Your task to perform on an android device: turn on javascript in the chrome app Image 0: 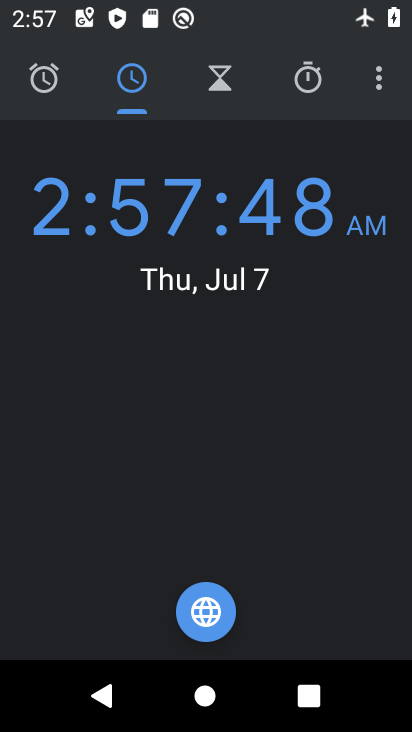
Step 0: press home button
Your task to perform on an android device: turn on javascript in the chrome app Image 1: 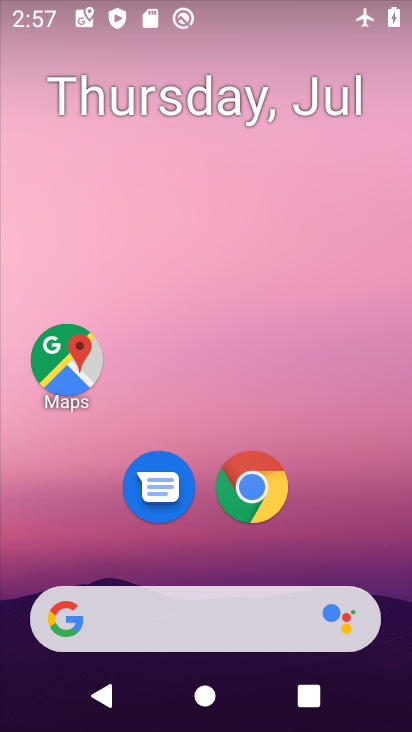
Step 1: drag from (335, 537) to (348, 194)
Your task to perform on an android device: turn on javascript in the chrome app Image 2: 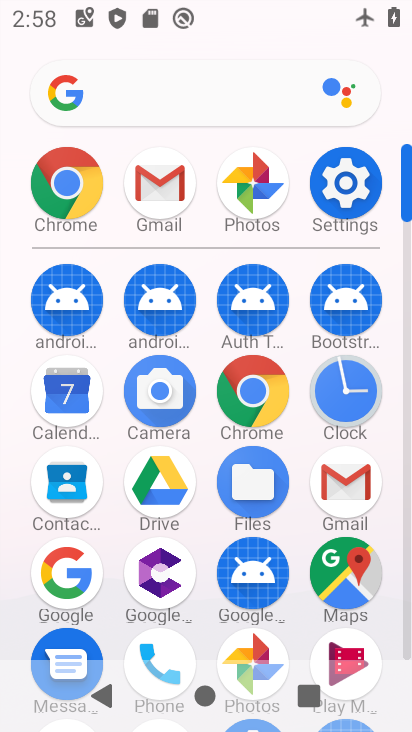
Step 2: click (276, 397)
Your task to perform on an android device: turn on javascript in the chrome app Image 3: 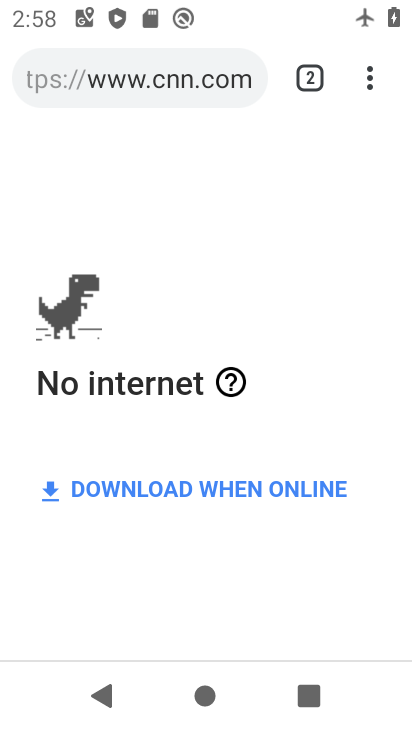
Step 3: click (368, 86)
Your task to perform on an android device: turn on javascript in the chrome app Image 4: 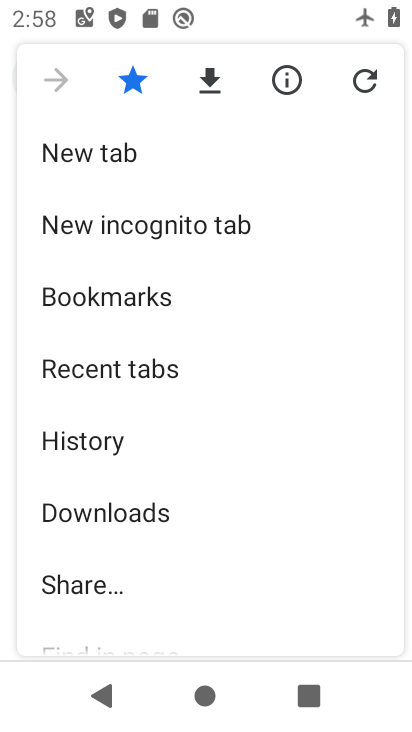
Step 4: drag from (321, 341) to (327, 272)
Your task to perform on an android device: turn on javascript in the chrome app Image 5: 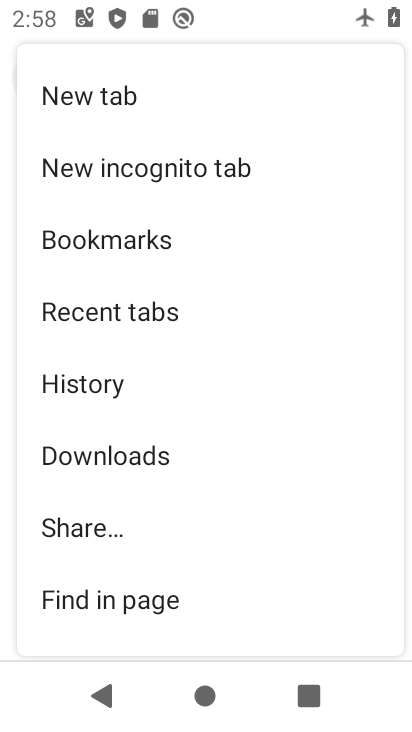
Step 5: drag from (321, 370) to (320, 278)
Your task to perform on an android device: turn on javascript in the chrome app Image 6: 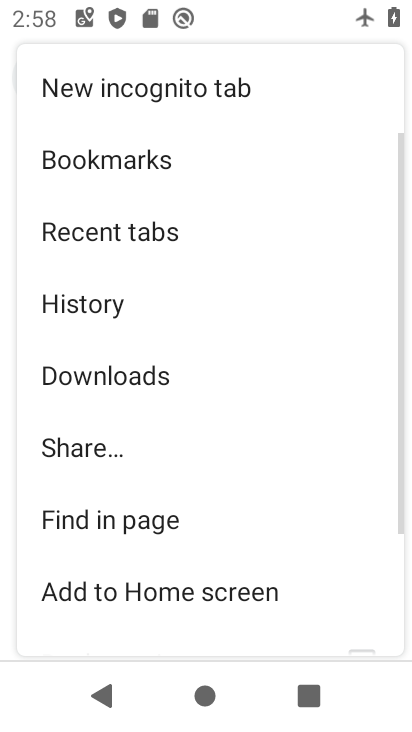
Step 6: drag from (316, 363) to (314, 285)
Your task to perform on an android device: turn on javascript in the chrome app Image 7: 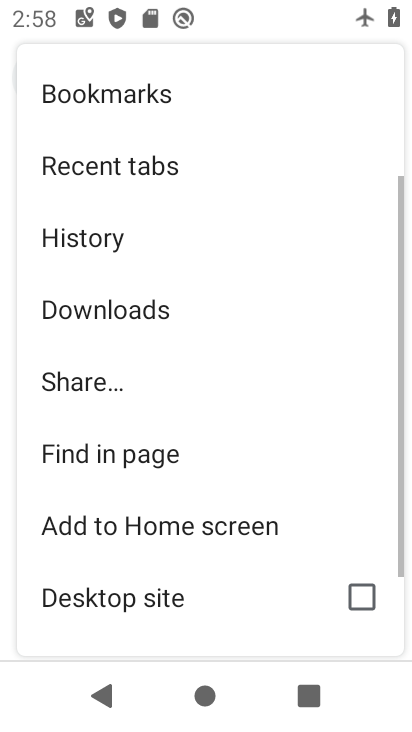
Step 7: drag from (314, 369) to (314, 306)
Your task to perform on an android device: turn on javascript in the chrome app Image 8: 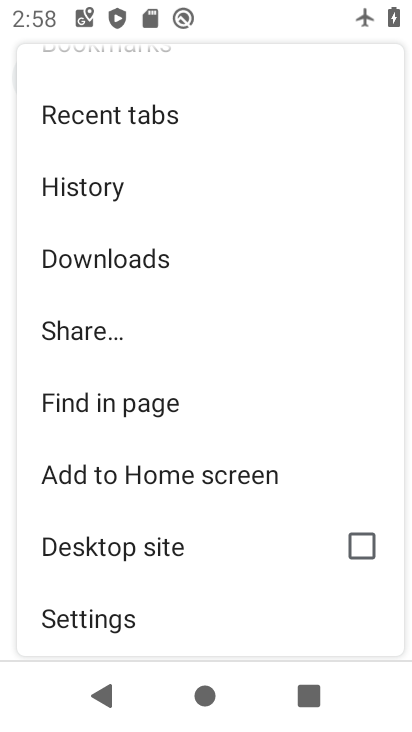
Step 8: drag from (287, 401) to (292, 307)
Your task to perform on an android device: turn on javascript in the chrome app Image 9: 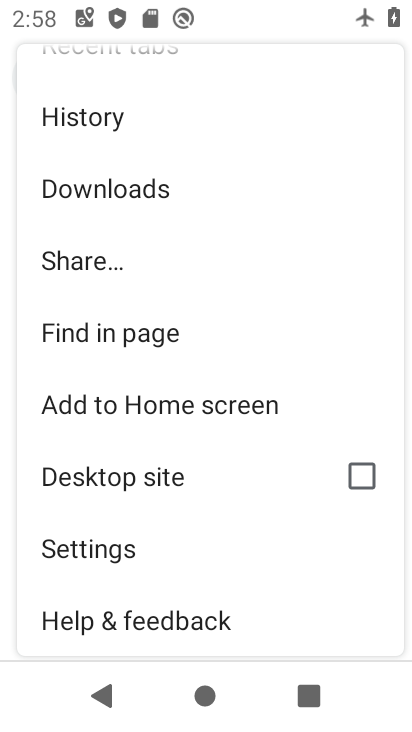
Step 9: drag from (299, 473) to (300, 372)
Your task to perform on an android device: turn on javascript in the chrome app Image 10: 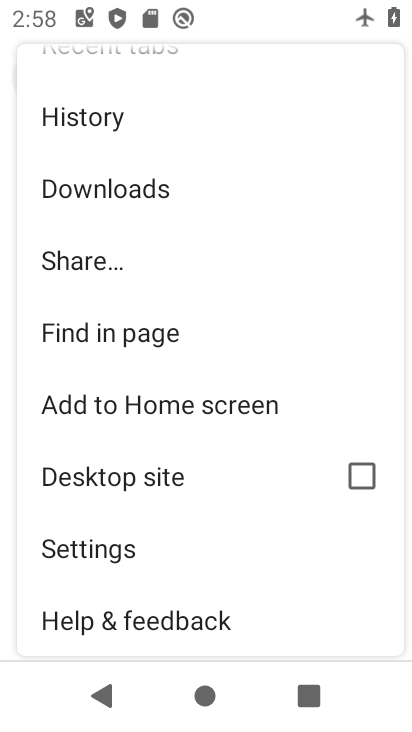
Step 10: click (208, 560)
Your task to perform on an android device: turn on javascript in the chrome app Image 11: 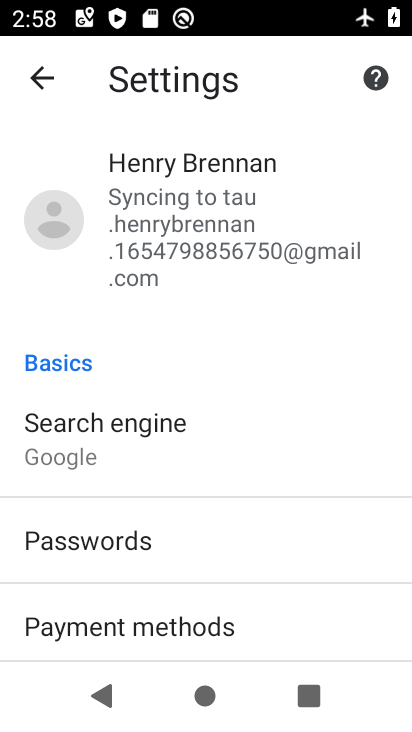
Step 11: drag from (330, 505) to (332, 432)
Your task to perform on an android device: turn on javascript in the chrome app Image 12: 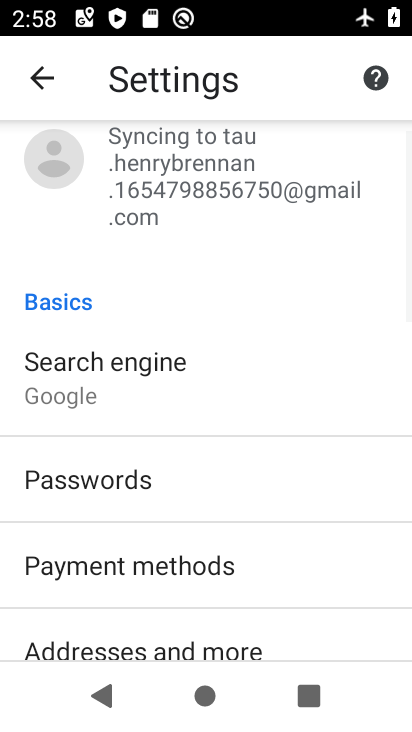
Step 12: drag from (322, 500) to (327, 428)
Your task to perform on an android device: turn on javascript in the chrome app Image 13: 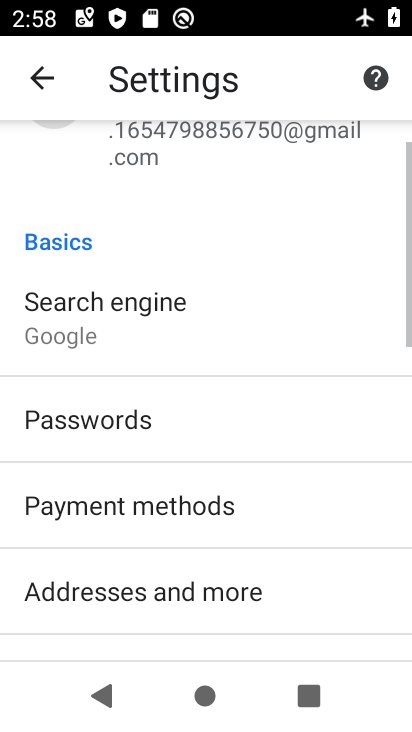
Step 13: drag from (323, 505) to (322, 419)
Your task to perform on an android device: turn on javascript in the chrome app Image 14: 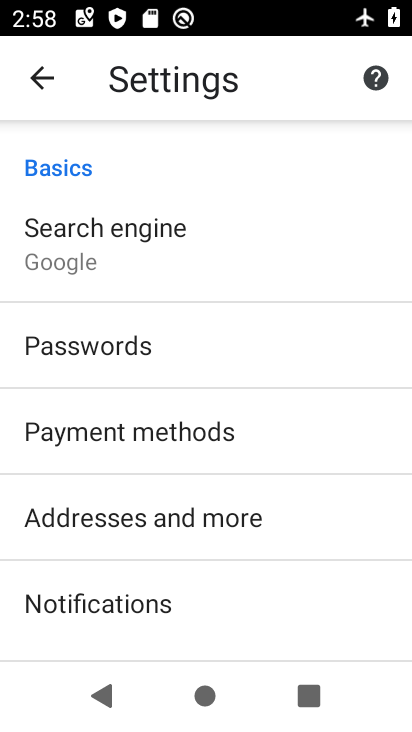
Step 14: drag from (323, 515) to (328, 419)
Your task to perform on an android device: turn on javascript in the chrome app Image 15: 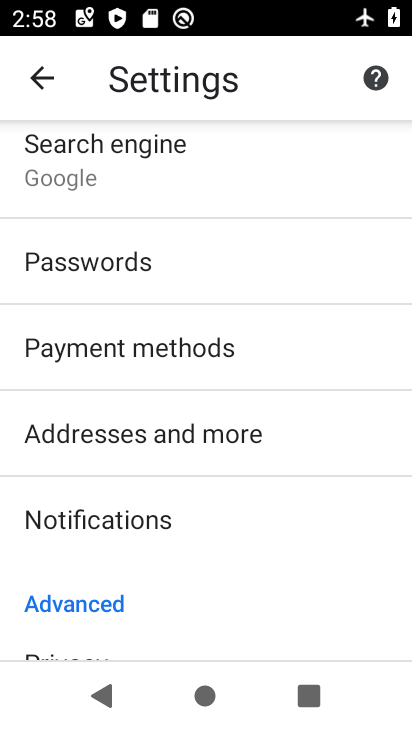
Step 15: drag from (321, 549) to (320, 438)
Your task to perform on an android device: turn on javascript in the chrome app Image 16: 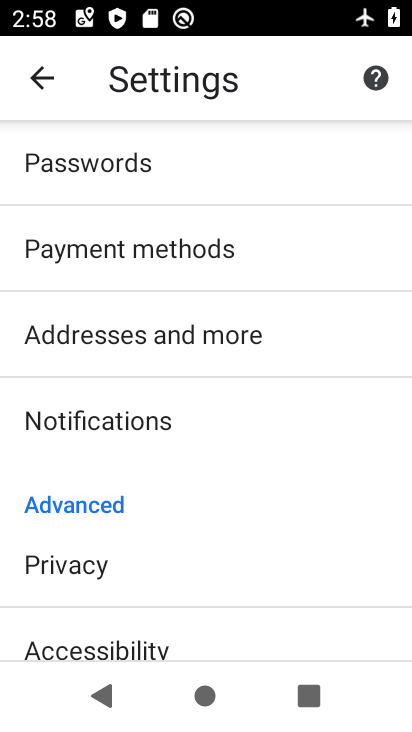
Step 16: drag from (331, 511) to (339, 394)
Your task to perform on an android device: turn on javascript in the chrome app Image 17: 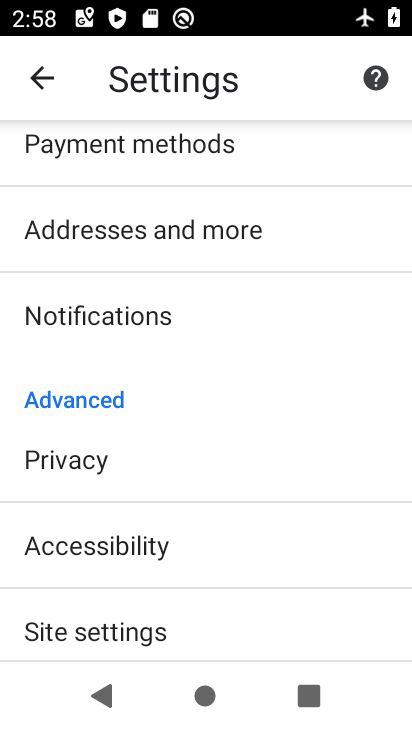
Step 17: drag from (306, 497) to (308, 394)
Your task to perform on an android device: turn on javascript in the chrome app Image 18: 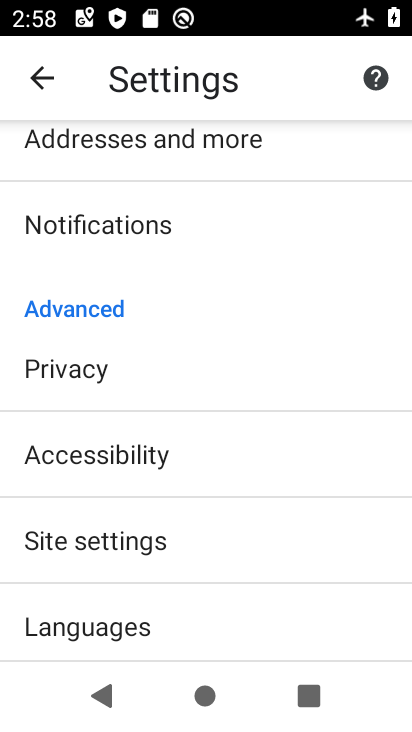
Step 18: drag from (286, 539) to (288, 428)
Your task to perform on an android device: turn on javascript in the chrome app Image 19: 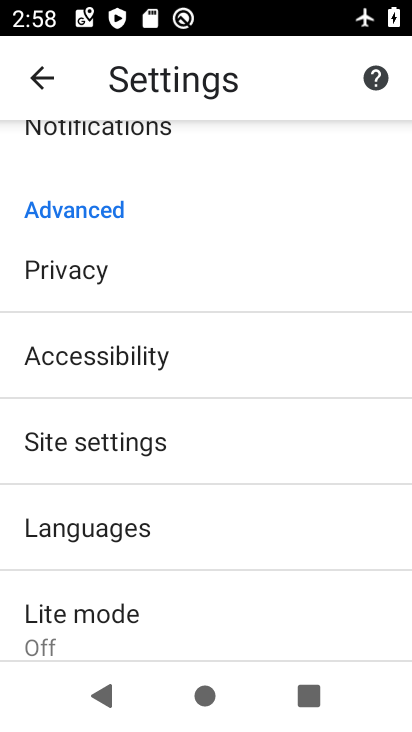
Step 19: drag from (284, 550) to (298, 434)
Your task to perform on an android device: turn on javascript in the chrome app Image 20: 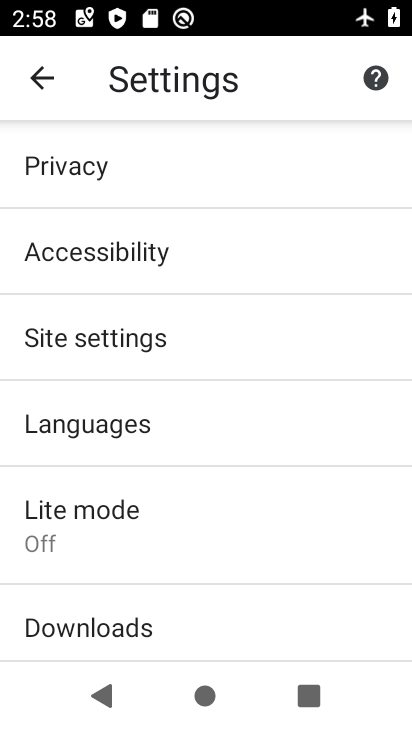
Step 20: click (258, 352)
Your task to perform on an android device: turn on javascript in the chrome app Image 21: 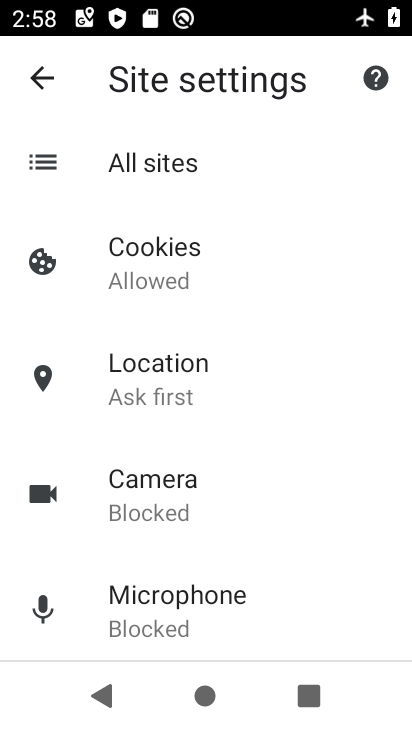
Step 21: drag from (327, 439) to (330, 336)
Your task to perform on an android device: turn on javascript in the chrome app Image 22: 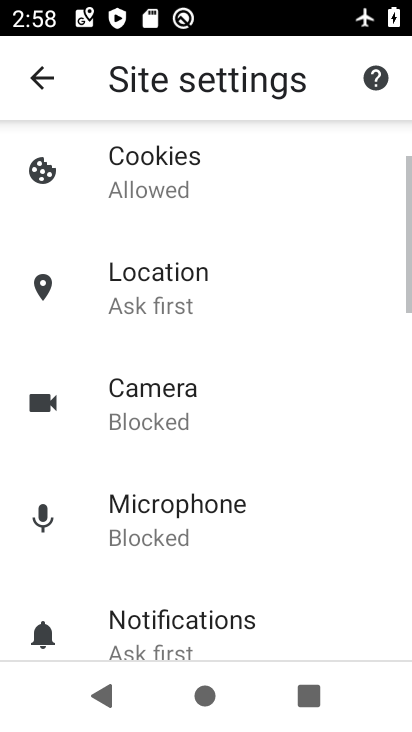
Step 22: drag from (323, 468) to (315, 376)
Your task to perform on an android device: turn on javascript in the chrome app Image 23: 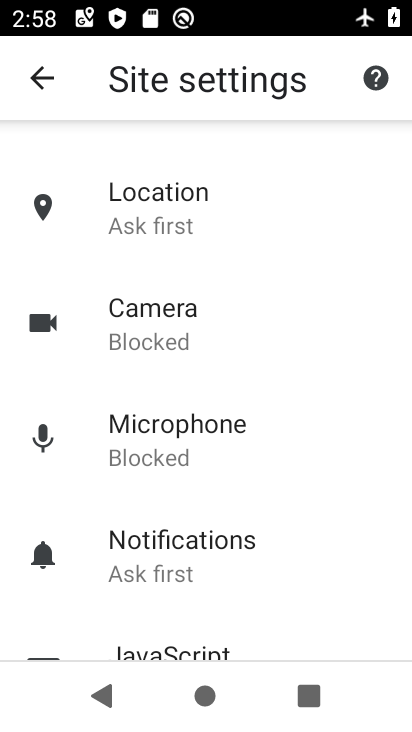
Step 23: drag from (318, 475) to (318, 340)
Your task to perform on an android device: turn on javascript in the chrome app Image 24: 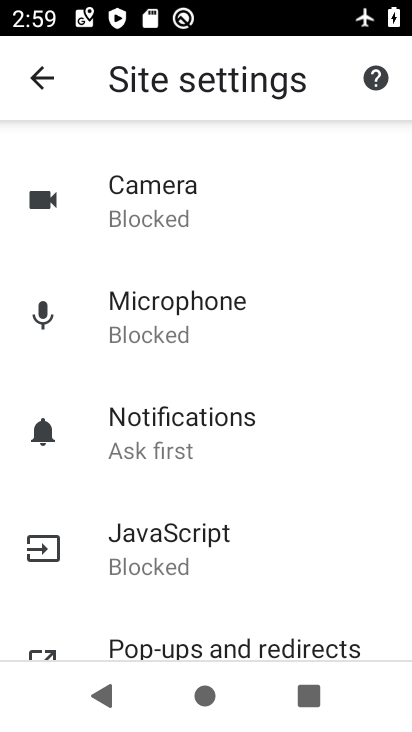
Step 24: drag from (308, 517) to (317, 416)
Your task to perform on an android device: turn on javascript in the chrome app Image 25: 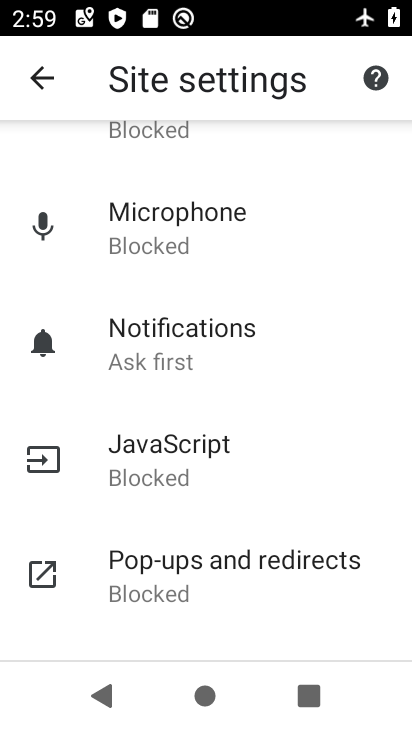
Step 25: drag from (317, 510) to (332, 409)
Your task to perform on an android device: turn on javascript in the chrome app Image 26: 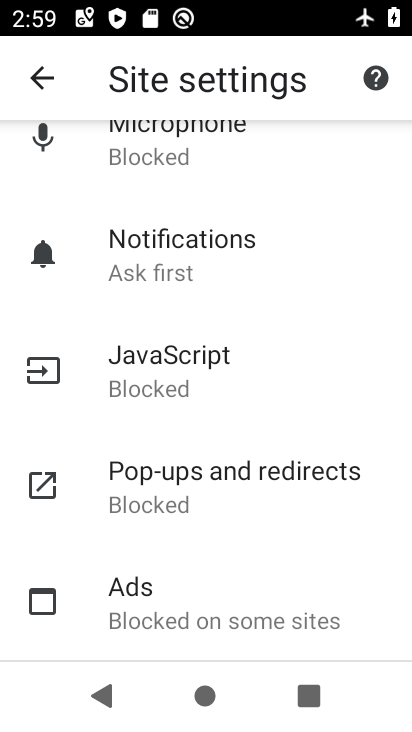
Step 26: click (262, 413)
Your task to perform on an android device: turn on javascript in the chrome app Image 27: 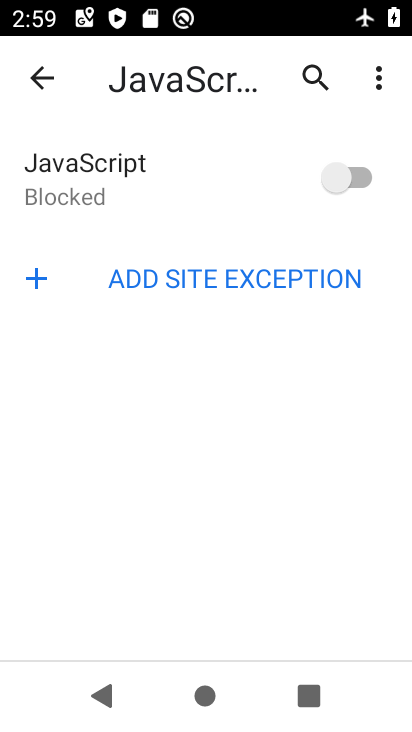
Step 27: click (336, 189)
Your task to perform on an android device: turn on javascript in the chrome app Image 28: 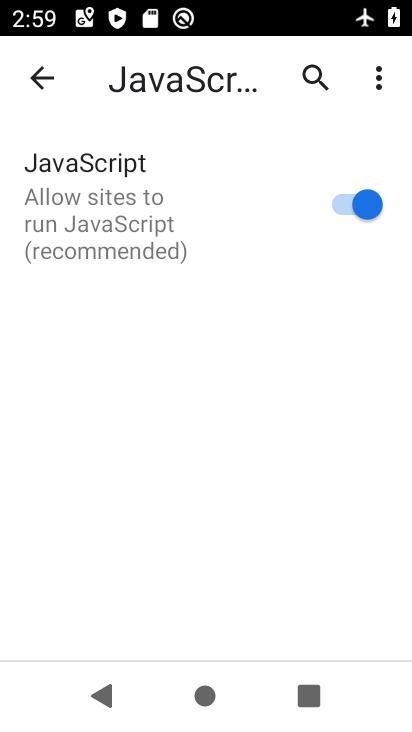
Step 28: task complete